Your task to perform on an android device: Go to battery settings Image 0: 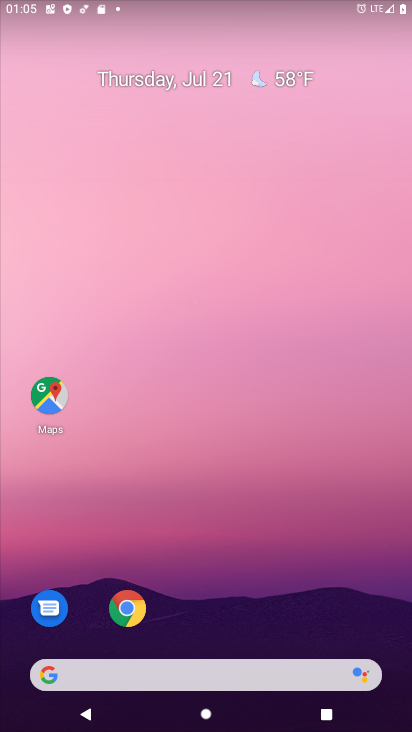
Step 0: drag from (211, 623) to (274, 58)
Your task to perform on an android device: Go to battery settings Image 1: 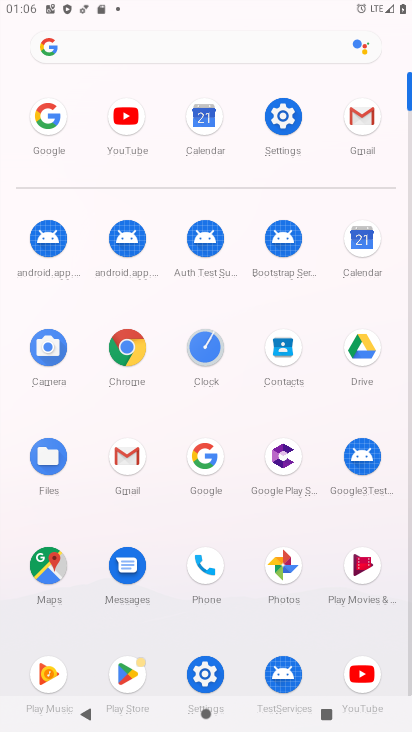
Step 1: click (278, 109)
Your task to perform on an android device: Go to battery settings Image 2: 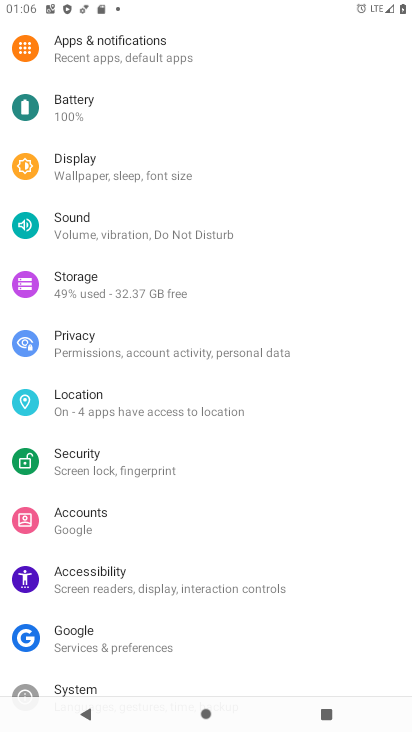
Step 2: click (105, 108)
Your task to perform on an android device: Go to battery settings Image 3: 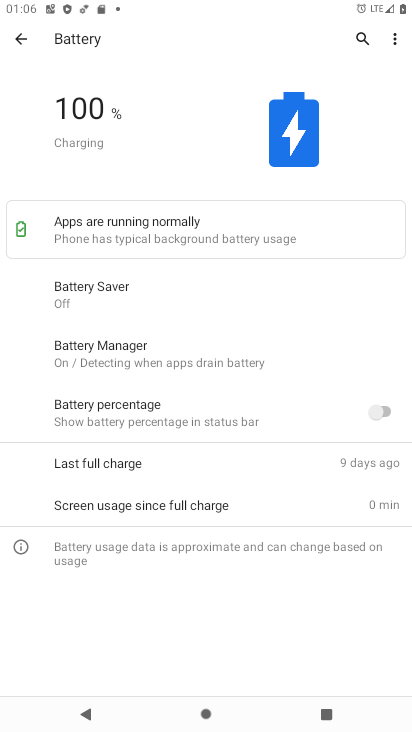
Step 3: task complete